Your task to perform on an android device: move an email to a new category in the gmail app Image 0: 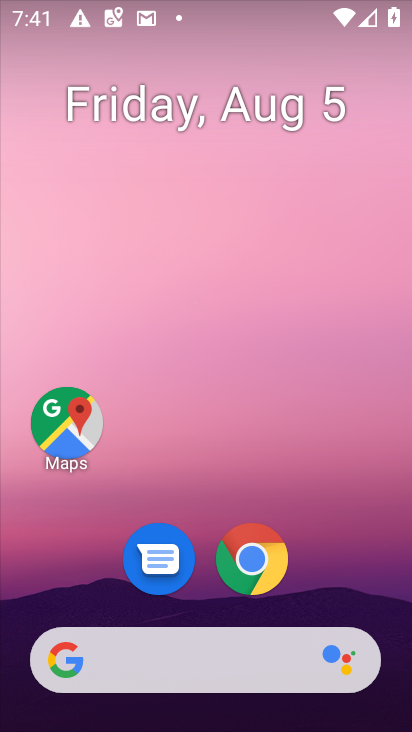
Step 0: drag from (245, 587) to (204, 9)
Your task to perform on an android device: move an email to a new category in the gmail app Image 1: 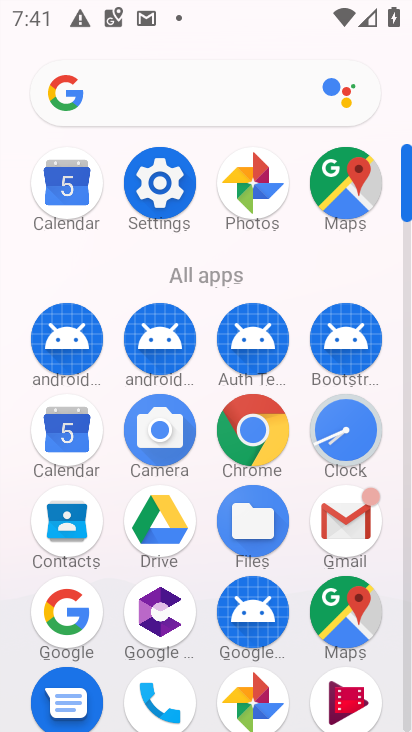
Step 1: click (333, 531)
Your task to perform on an android device: move an email to a new category in the gmail app Image 2: 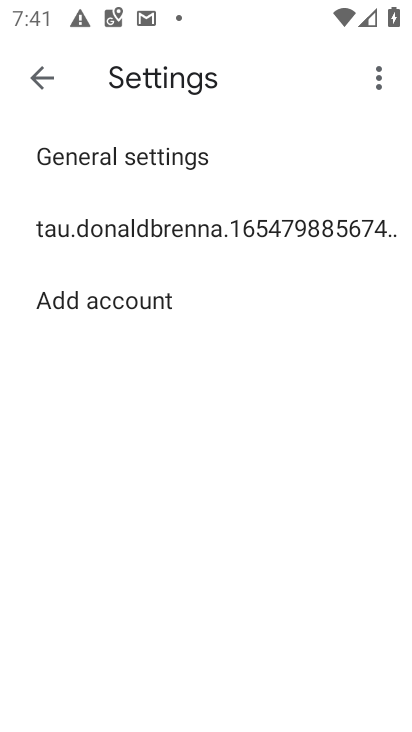
Step 2: click (42, 65)
Your task to perform on an android device: move an email to a new category in the gmail app Image 3: 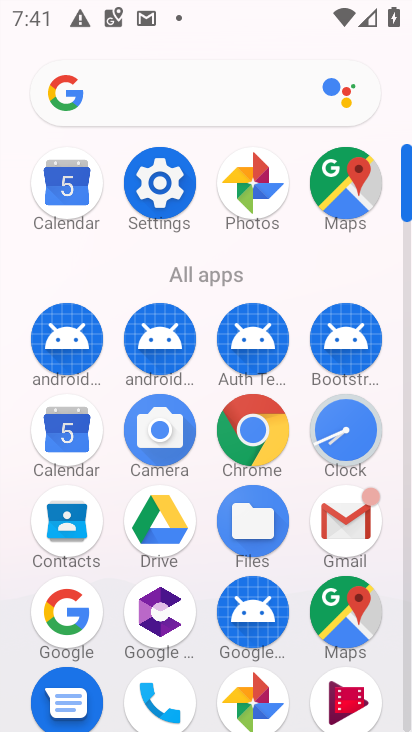
Step 3: click (364, 531)
Your task to perform on an android device: move an email to a new category in the gmail app Image 4: 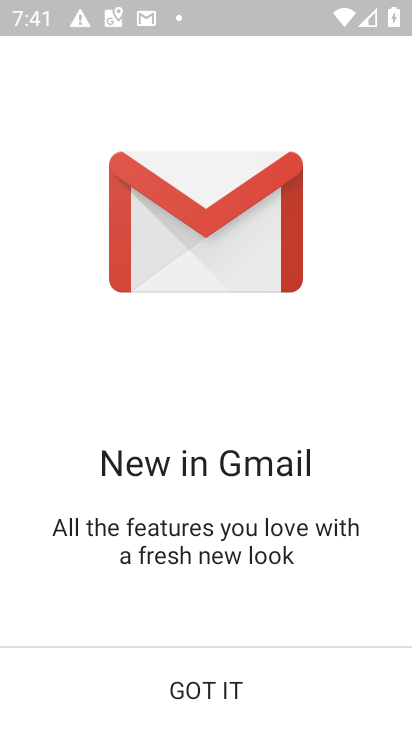
Step 4: click (219, 681)
Your task to perform on an android device: move an email to a new category in the gmail app Image 5: 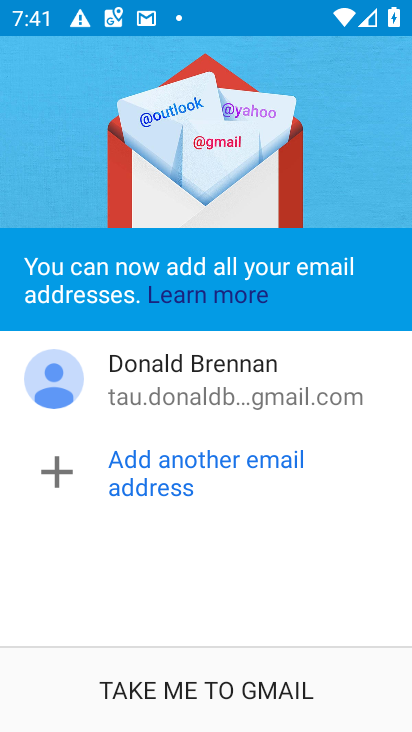
Step 5: click (218, 684)
Your task to perform on an android device: move an email to a new category in the gmail app Image 6: 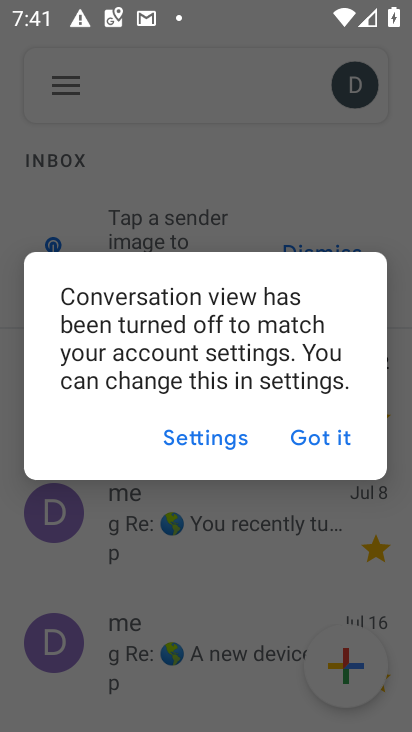
Step 6: click (309, 442)
Your task to perform on an android device: move an email to a new category in the gmail app Image 7: 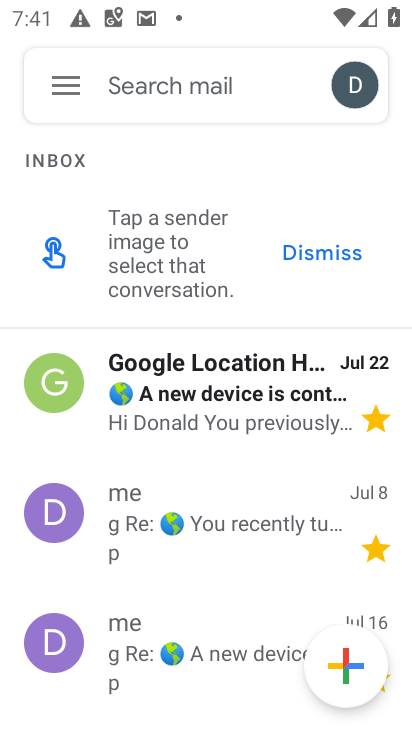
Step 7: click (60, 391)
Your task to perform on an android device: move an email to a new category in the gmail app Image 8: 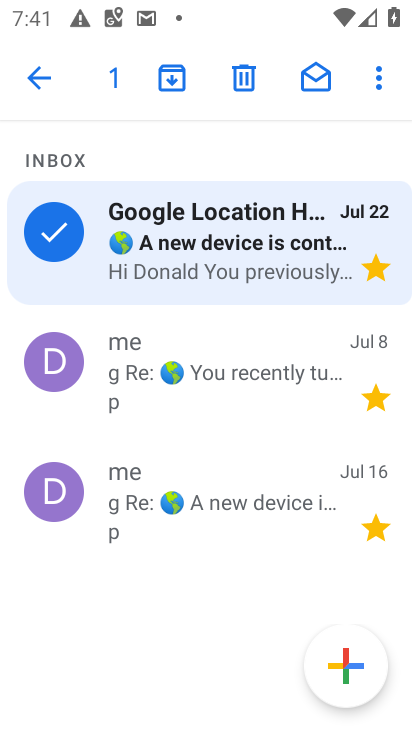
Step 8: click (377, 82)
Your task to perform on an android device: move an email to a new category in the gmail app Image 9: 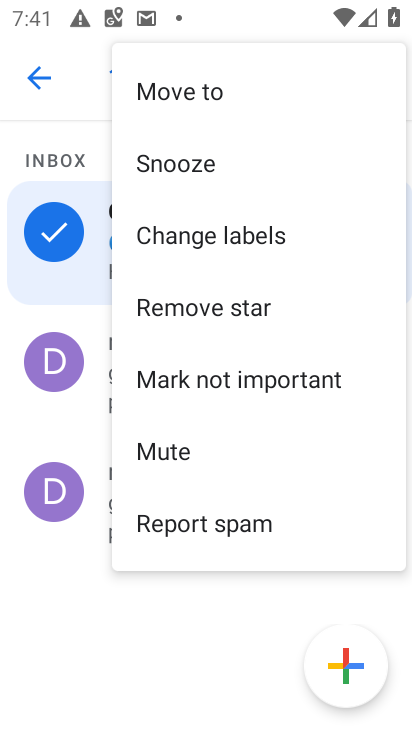
Step 9: click (235, 235)
Your task to perform on an android device: move an email to a new category in the gmail app Image 10: 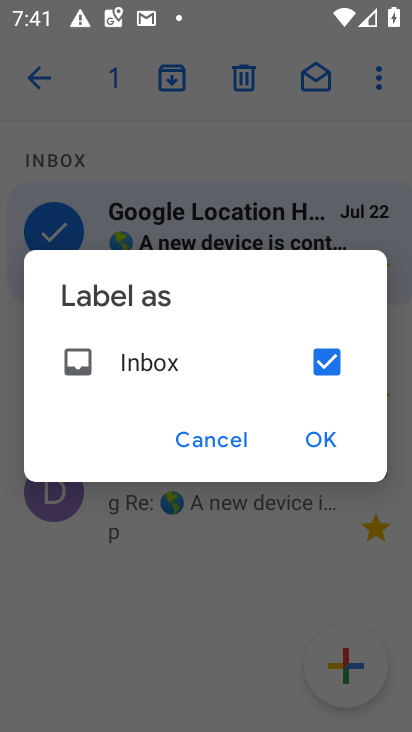
Step 10: click (325, 363)
Your task to perform on an android device: move an email to a new category in the gmail app Image 11: 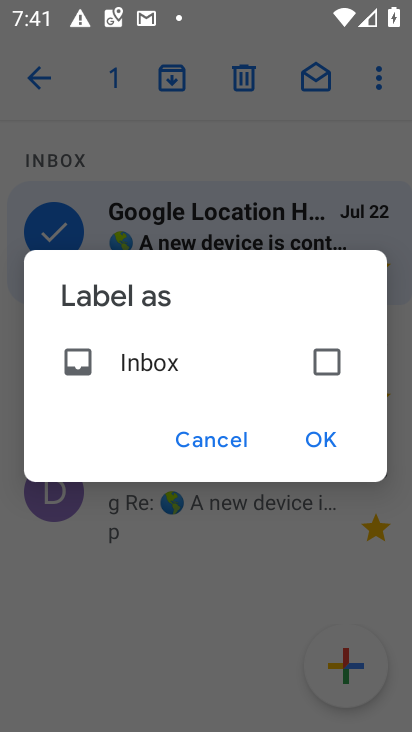
Step 11: click (320, 449)
Your task to perform on an android device: move an email to a new category in the gmail app Image 12: 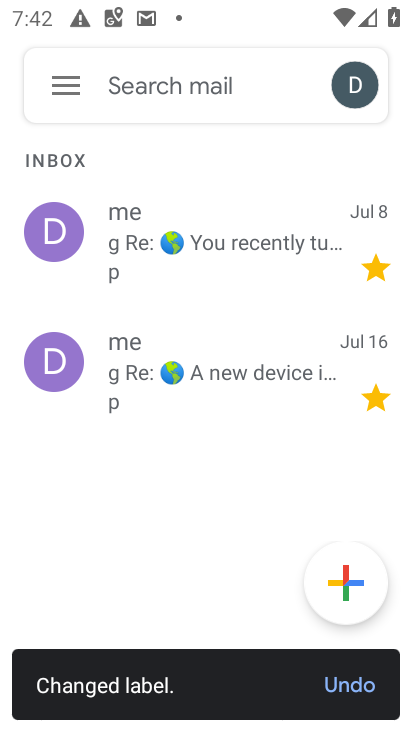
Step 12: task complete